Your task to perform on an android device: Open Chrome and go to settings Image 0: 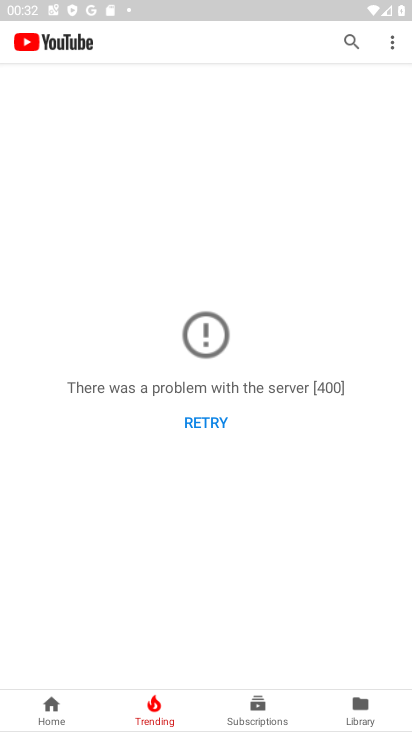
Step 0: press home button
Your task to perform on an android device: Open Chrome and go to settings Image 1: 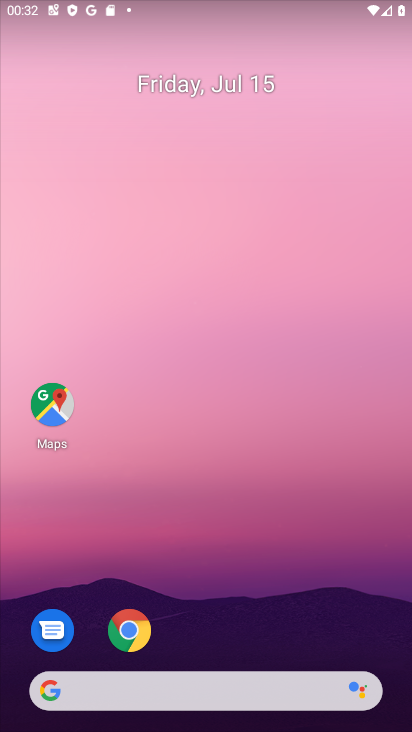
Step 1: click (253, 666)
Your task to perform on an android device: Open Chrome and go to settings Image 2: 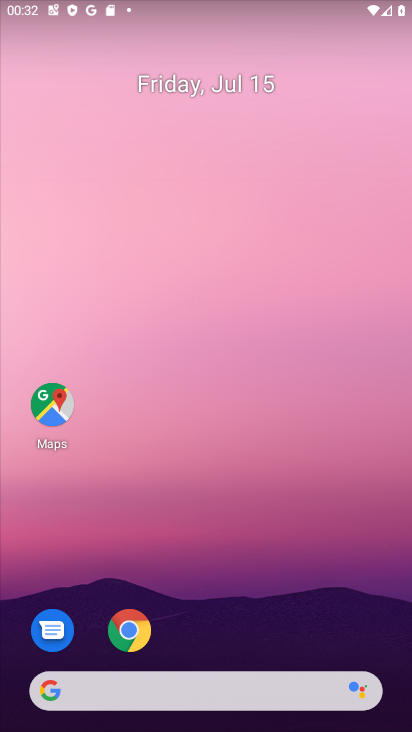
Step 2: click (117, 634)
Your task to perform on an android device: Open Chrome and go to settings Image 3: 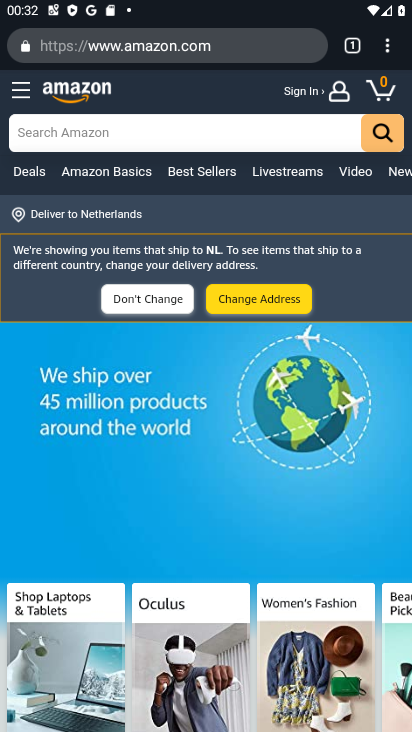
Step 3: click (387, 53)
Your task to perform on an android device: Open Chrome and go to settings Image 4: 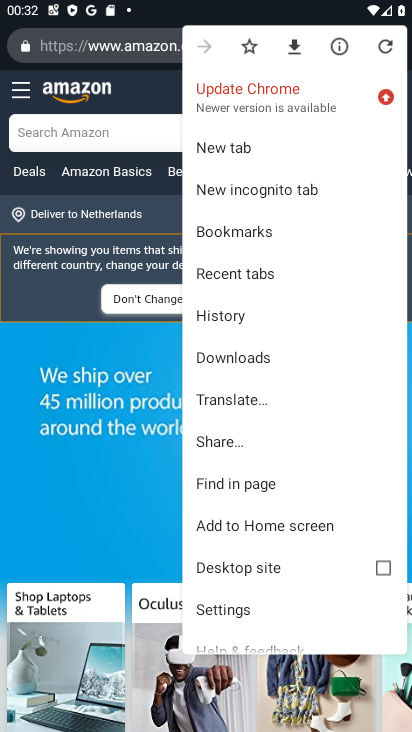
Step 4: click (236, 603)
Your task to perform on an android device: Open Chrome and go to settings Image 5: 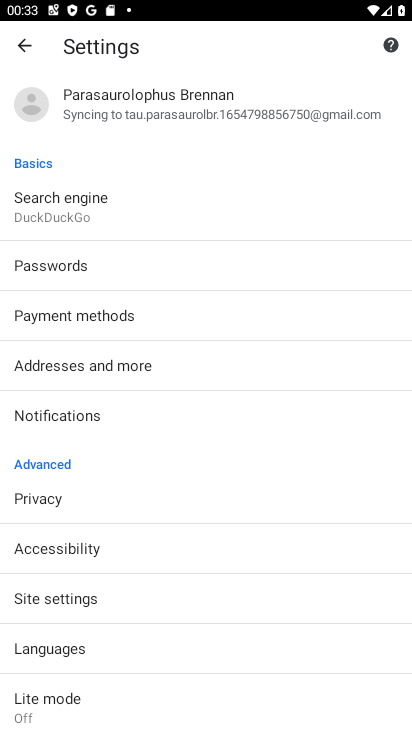
Step 5: task complete